Your task to perform on an android device: turn on priority inbox in the gmail app Image 0: 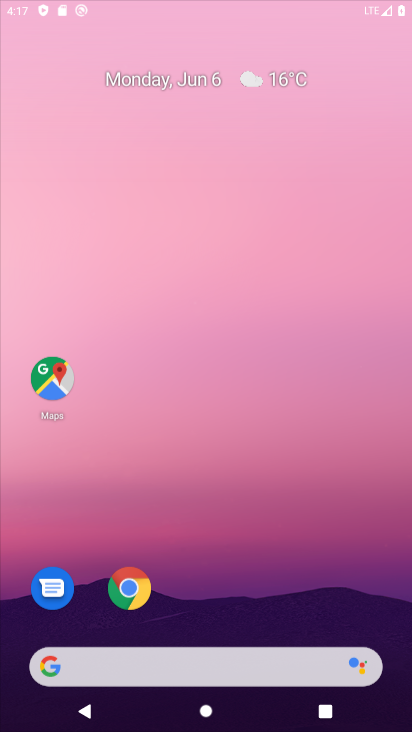
Step 0: drag from (176, 58) to (189, 5)
Your task to perform on an android device: turn on priority inbox in the gmail app Image 1: 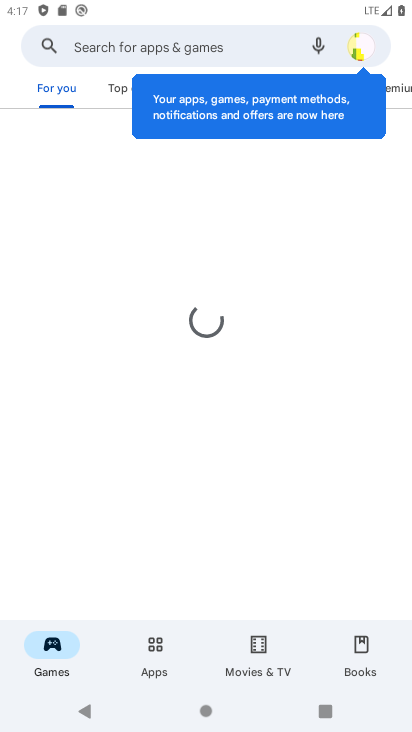
Step 1: press back button
Your task to perform on an android device: turn on priority inbox in the gmail app Image 2: 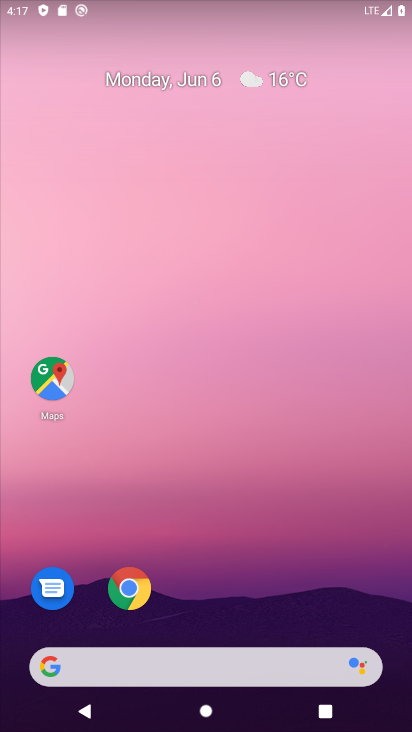
Step 2: press home button
Your task to perform on an android device: turn on priority inbox in the gmail app Image 3: 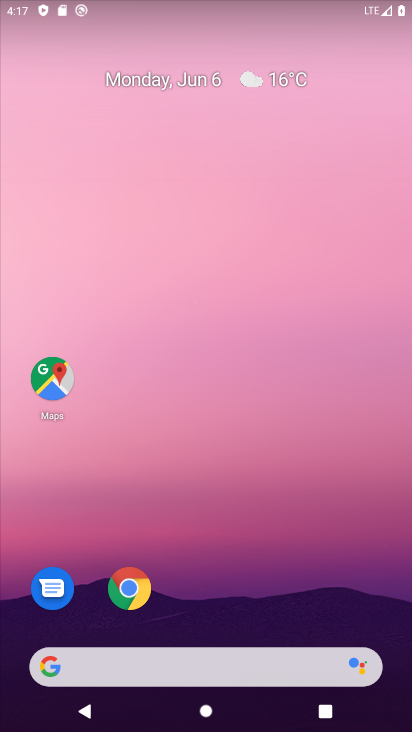
Step 3: drag from (268, 689) to (175, 180)
Your task to perform on an android device: turn on priority inbox in the gmail app Image 4: 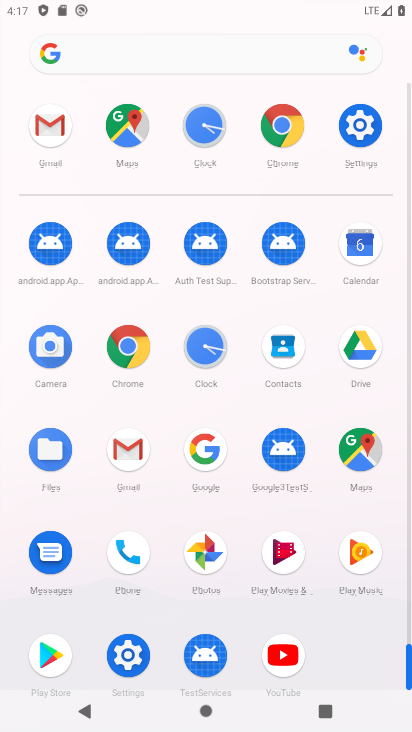
Step 4: click (110, 454)
Your task to perform on an android device: turn on priority inbox in the gmail app Image 5: 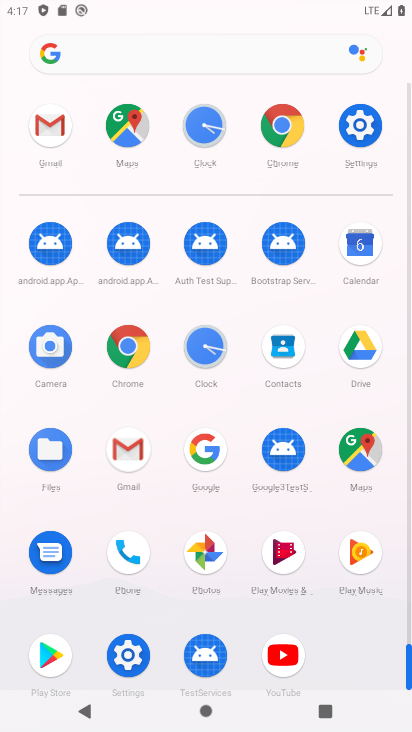
Step 5: click (112, 452)
Your task to perform on an android device: turn on priority inbox in the gmail app Image 6: 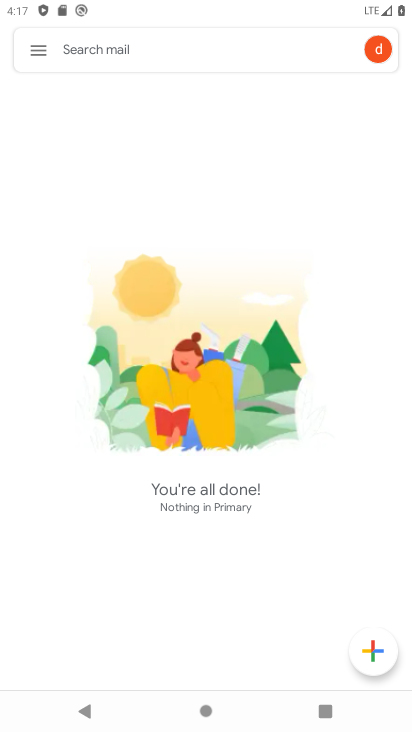
Step 6: click (23, 46)
Your task to perform on an android device: turn on priority inbox in the gmail app Image 7: 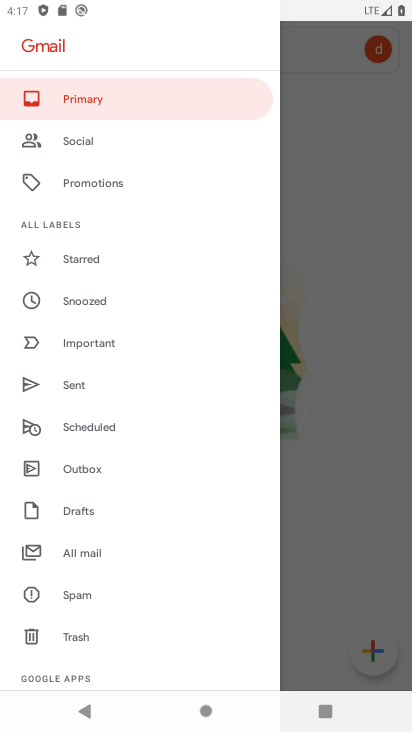
Step 7: drag from (135, 518) to (97, 171)
Your task to perform on an android device: turn on priority inbox in the gmail app Image 8: 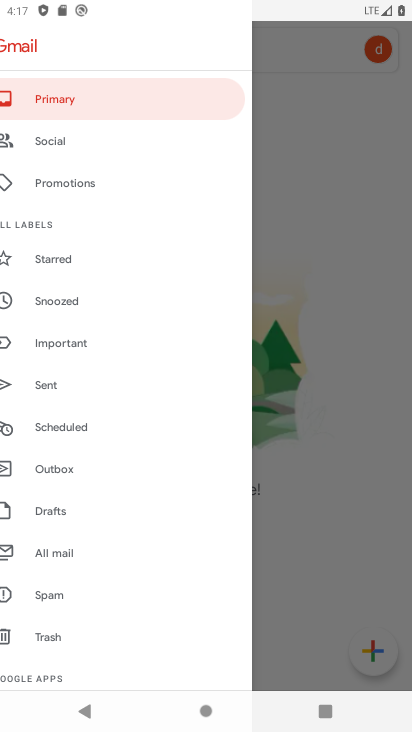
Step 8: drag from (151, 567) to (95, 225)
Your task to perform on an android device: turn on priority inbox in the gmail app Image 9: 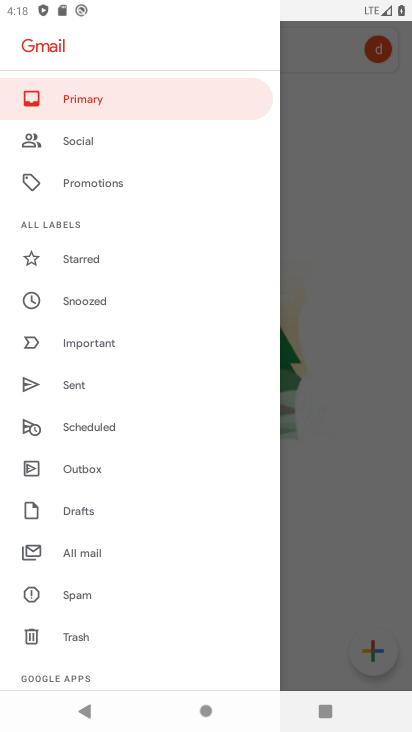
Step 9: drag from (94, 602) to (58, 124)
Your task to perform on an android device: turn on priority inbox in the gmail app Image 10: 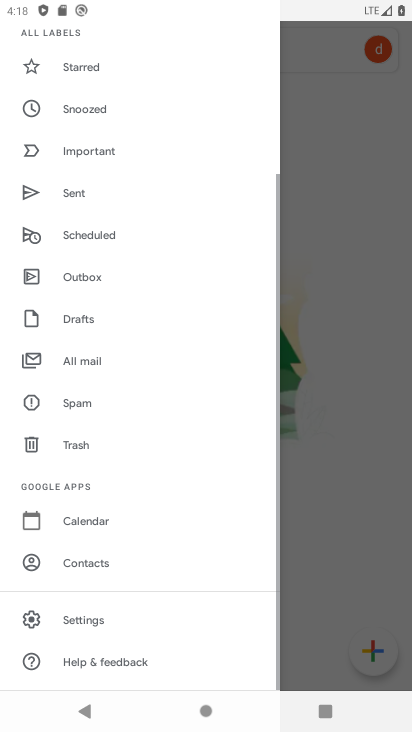
Step 10: drag from (127, 498) to (48, 118)
Your task to perform on an android device: turn on priority inbox in the gmail app Image 11: 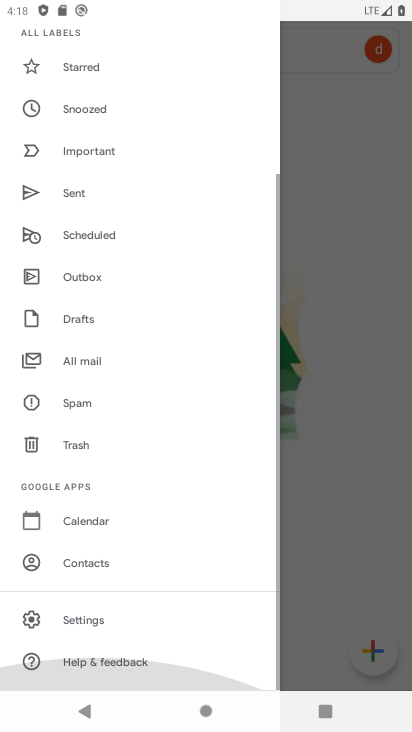
Step 11: drag from (107, 487) to (107, 85)
Your task to perform on an android device: turn on priority inbox in the gmail app Image 12: 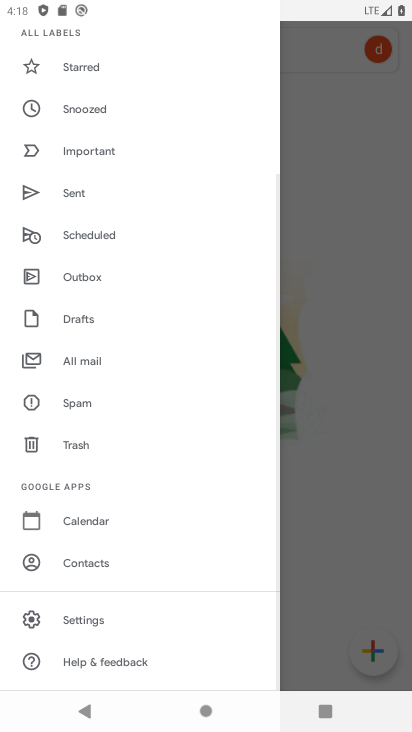
Step 12: click (73, 599)
Your task to perform on an android device: turn on priority inbox in the gmail app Image 13: 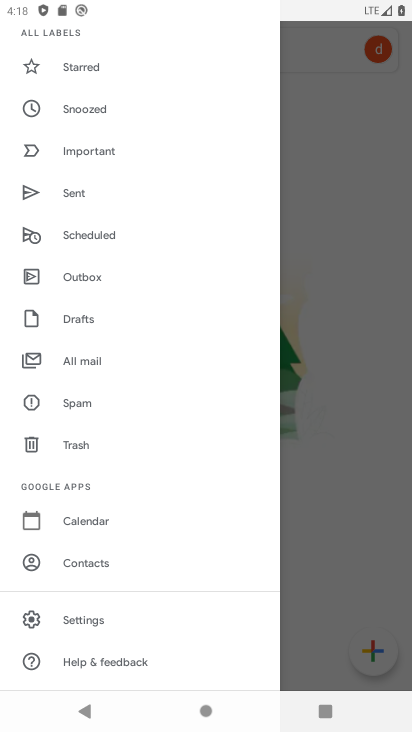
Step 13: click (68, 610)
Your task to perform on an android device: turn on priority inbox in the gmail app Image 14: 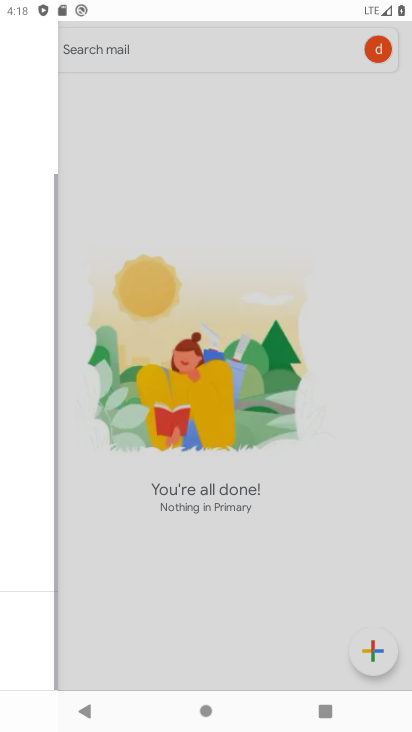
Step 14: click (68, 611)
Your task to perform on an android device: turn on priority inbox in the gmail app Image 15: 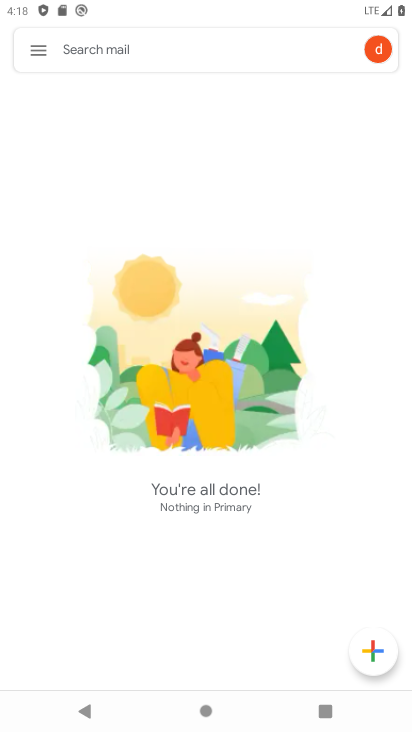
Step 15: click (86, 613)
Your task to perform on an android device: turn on priority inbox in the gmail app Image 16: 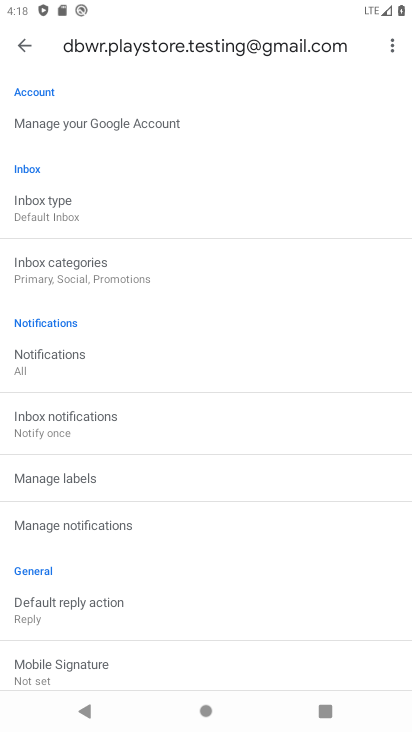
Step 16: click (39, 210)
Your task to perform on an android device: turn on priority inbox in the gmail app Image 17: 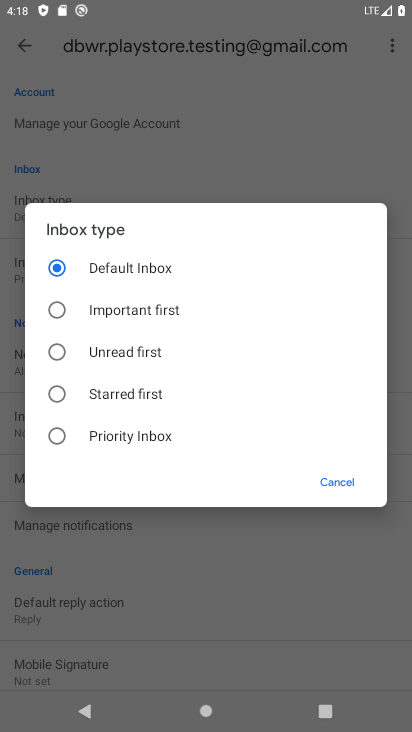
Step 17: click (30, 439)
Your task to perform on an android device: turn on priority inbox in the gmail app Image 18: 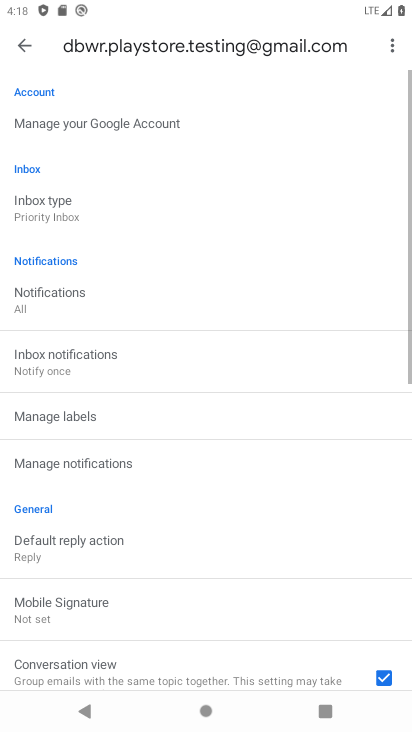
Step 18: click (59, 437)
Your task to perform on an android device: turn on priority inbox in the gmail app Image 19: 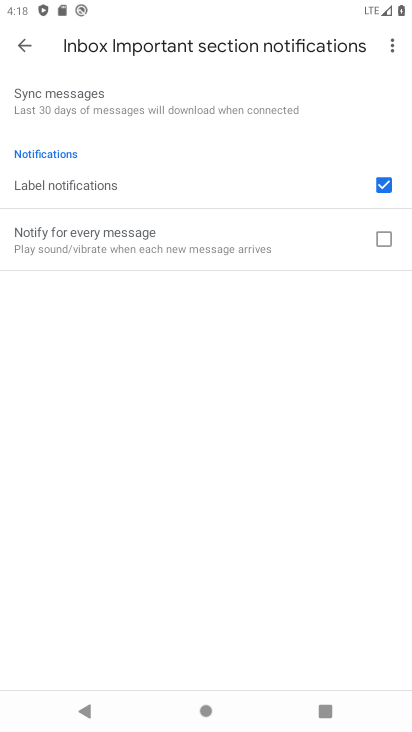
Step 19: task complete